Your task to perform on an android device: change the clock display to show seconds Image 0: 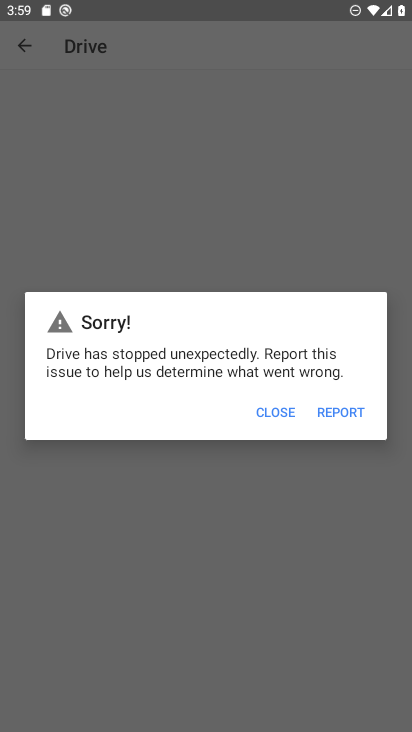
Step 0: press home button
Your task to perform on an android device: change the clock display to show seconds Image 1: 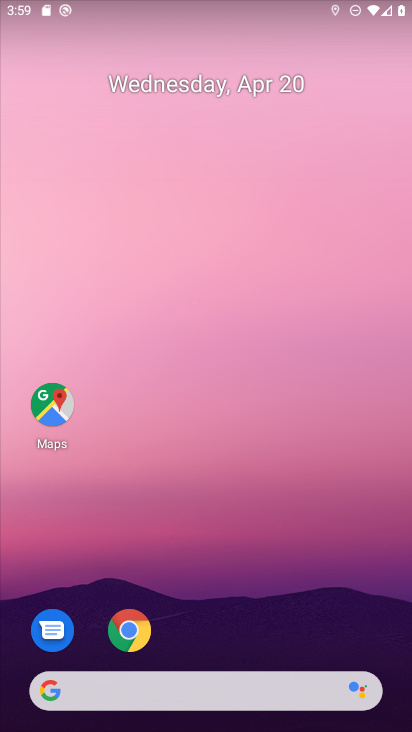
Step 1: drag from (281, 593) to (282, 62)
Your task to perform on an android device: change the clock display to show seconds Image 2: 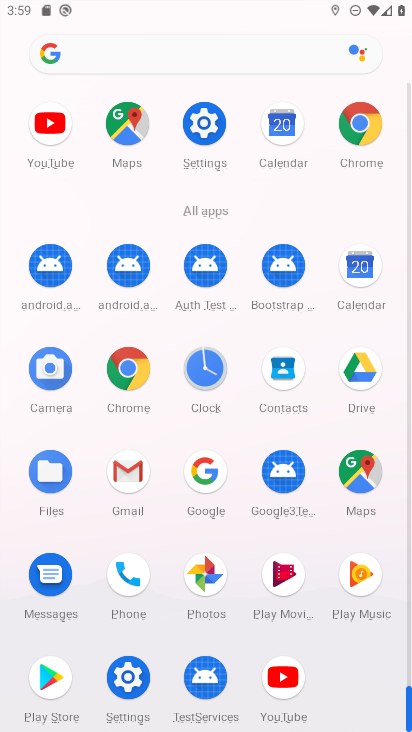
Step 2: click (209, 366)
Your task to perform on an android device: change the clock display to show seconds Image 3: 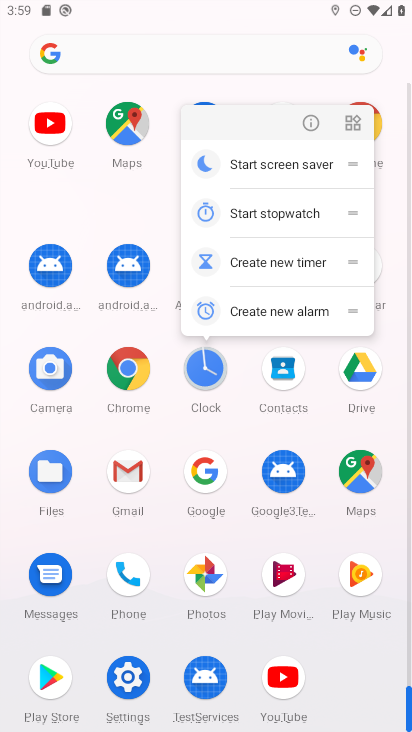
Step 3: click (209, 366)
Your task to perform on an android device: change the clock display to show seconds Image 4: 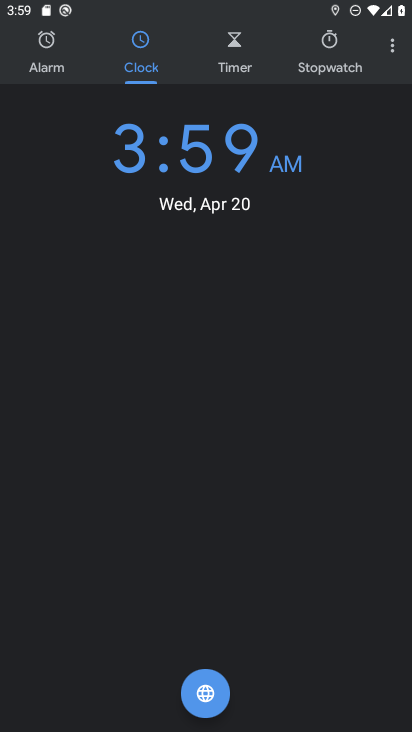
Step 4: click (386, 49)
Your task to perform on an android device: change the clock display to show seconds Image 5: 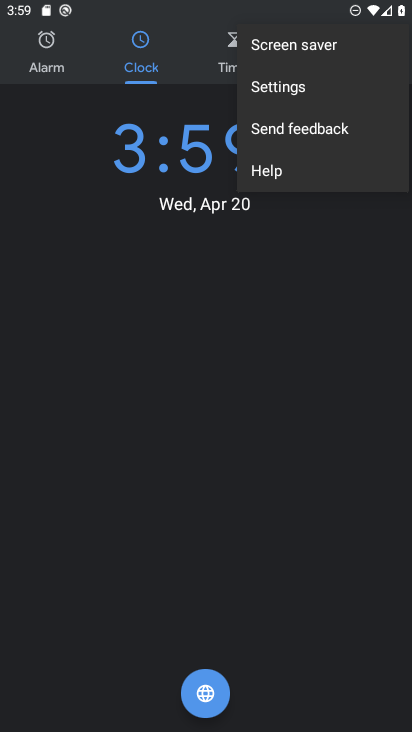
Step 5: click (291, 83)
Your task to perform on an android device: change the clock display to show seconds Image 6: 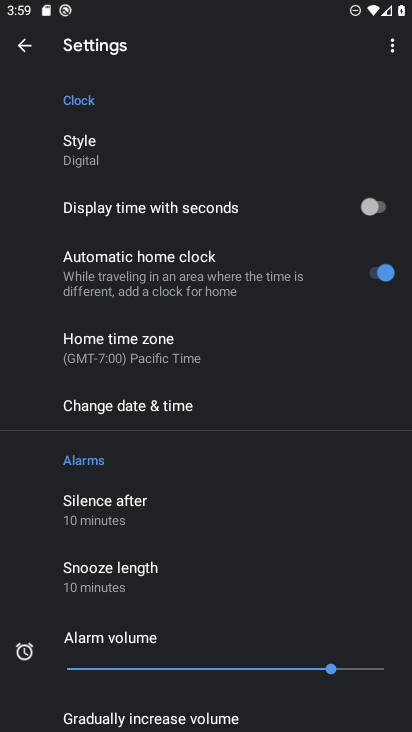
Step 6: click (385, 209)
Your task to perform on an android device: change the clock display to show seconds Image 7: 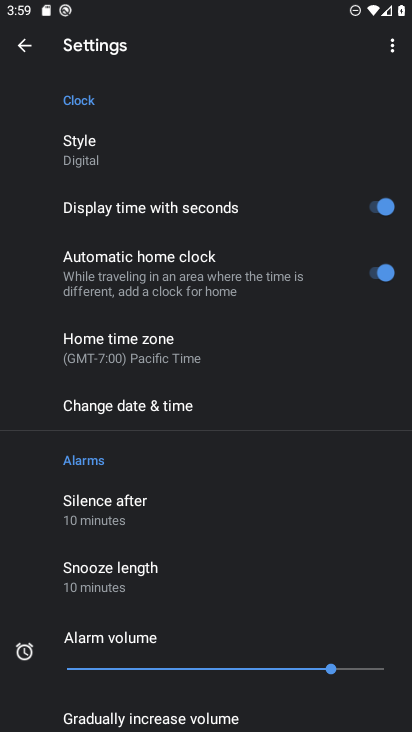
Step 7: task complete